Your task to perform on an android device: turn off priority inbox in the gmail app Image 0: 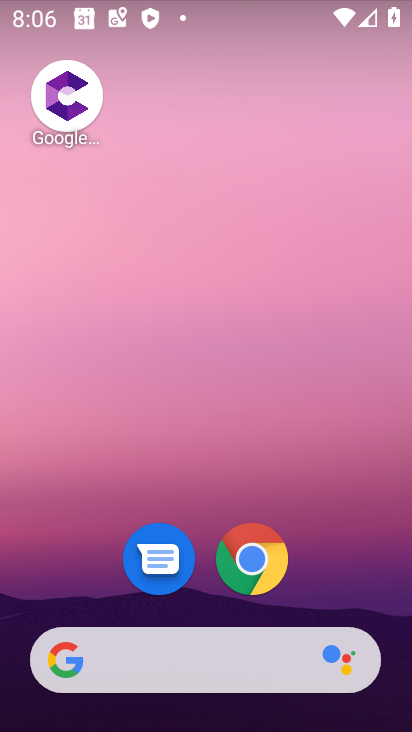
Step 0: drag from (226, 721) to (223, 246)
Your task to perform on an android device: turn off priority inbox in the gmail app Image 1: 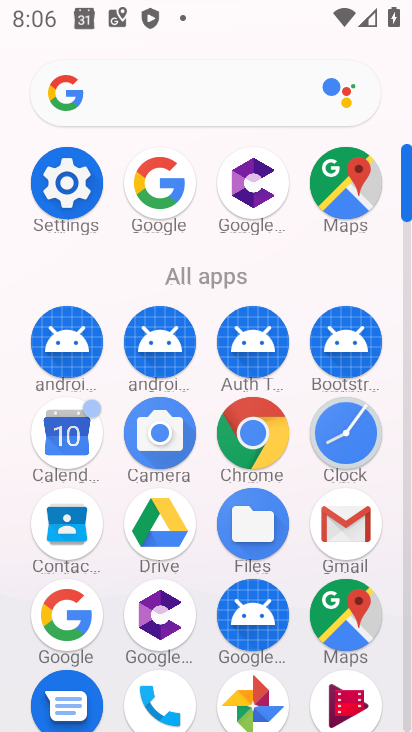
Step 1: click (344, 531)
Your task to perform on an android device: turn off priority inbox in the gmail app Image 2: 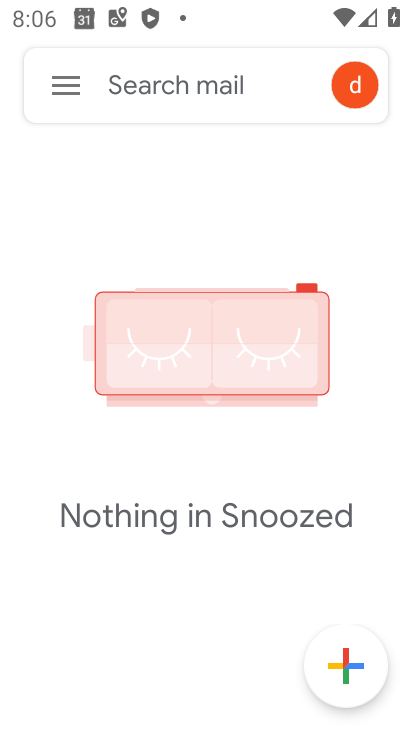
Step 2: click (60, 86)
Your task to perform on an android device: turn off priority inbox in the gmail app Image 3: 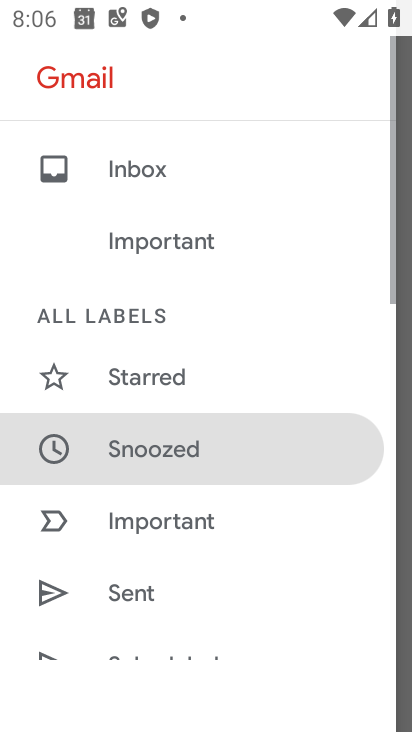
Step 3: drag from (141, 640) to (119, 237)
Your task to perform on an android device: turn off priority inbox in the gmail app Image 4: 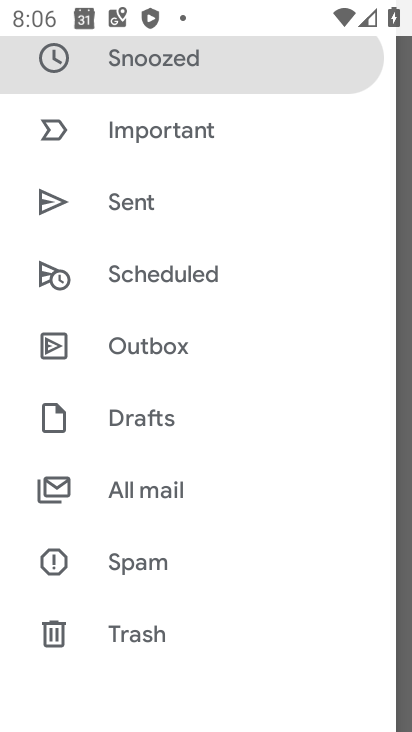
Step 4: drag from (146, 626) to (116, 174)
Your task to perform on an android device: turn off priority inbox in the gmail app Image 5: 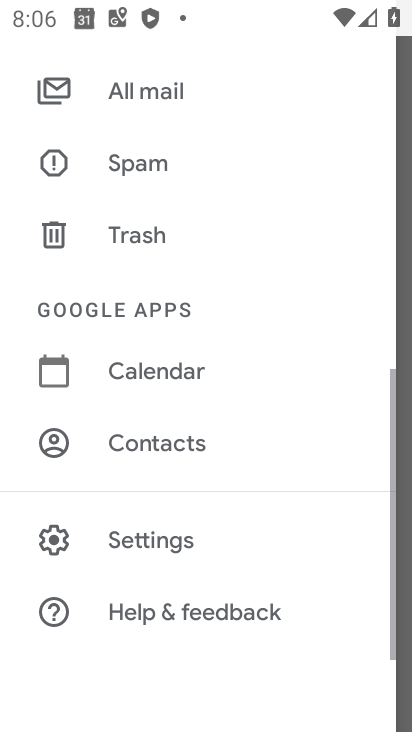
Step 5: click (154, 527)
Your task to perform on an android device: turn off priority inbox in the gmail app Image 6: 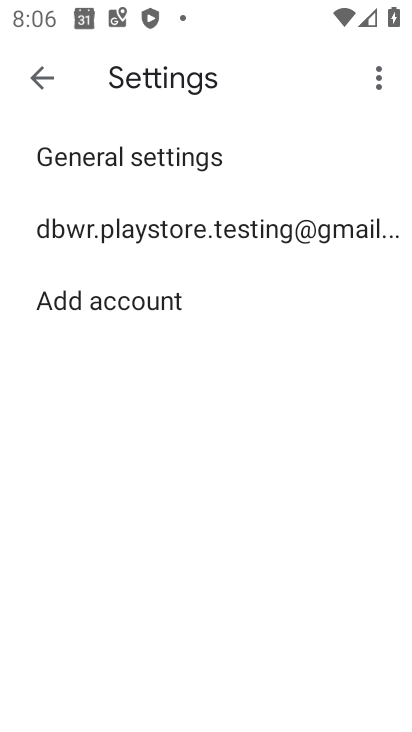
Step 6: click (177, 232)
Your task to perform on an android device: turn off priority inbox in the gmail app Image 7: 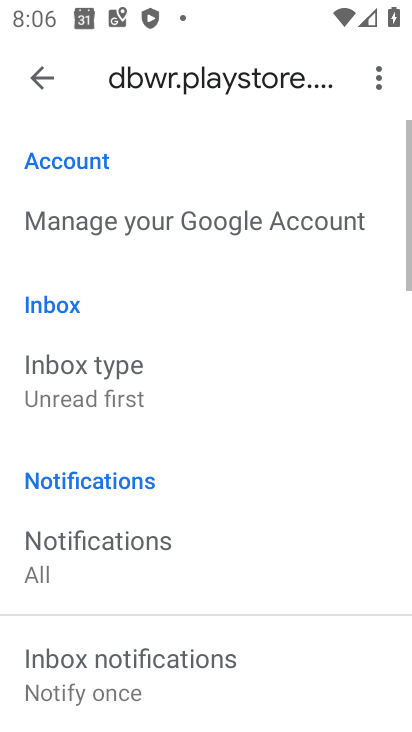
Step 7: task complete